Your task to perform on an android device: turn on airplane mode Image 0: 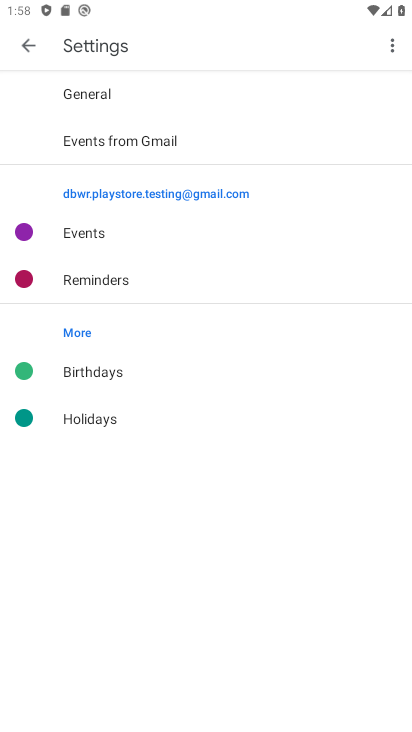
Step 0: press home button
Your task to perform on an android device: turn on airplane mode Image 1: 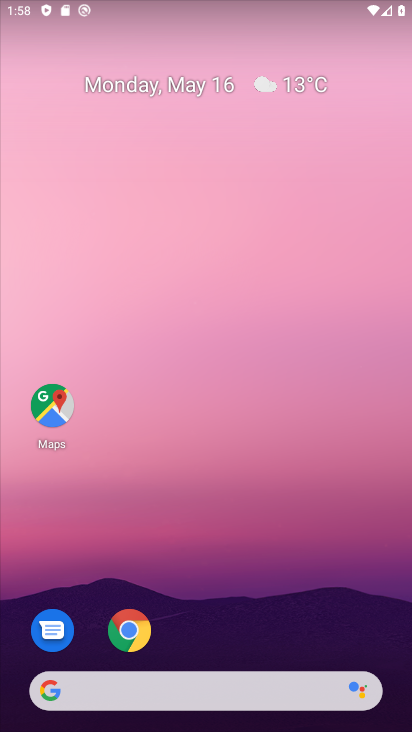
Step 1: drag from (240, 585) to (225, 156)
Your task to perform on an android device: turn on airplane mode Image 2: 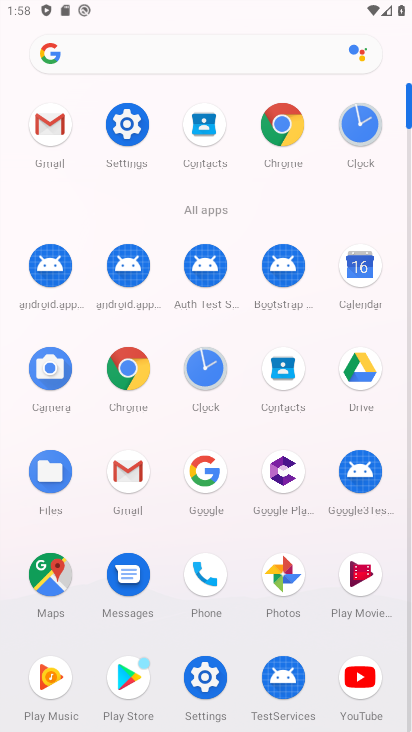
Step 2: click (141, 124)
Your task to perform on an android device: turn on airplane mode Image 3: 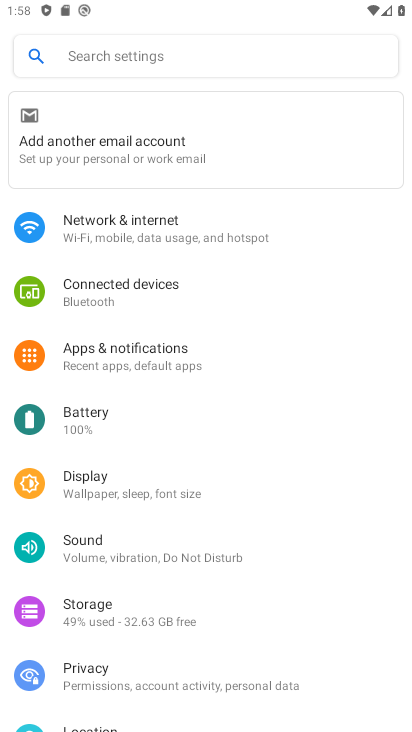
Step 3: click (148, 236)
Your task to perform on an android device: turn on airplane mode Image 4: 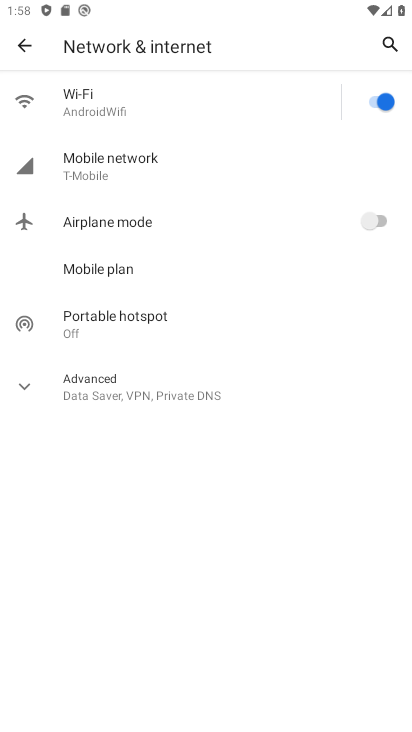
Step 4: click (162, 223)
Your task to perform on an android device: turn on airplane mode Image 5: 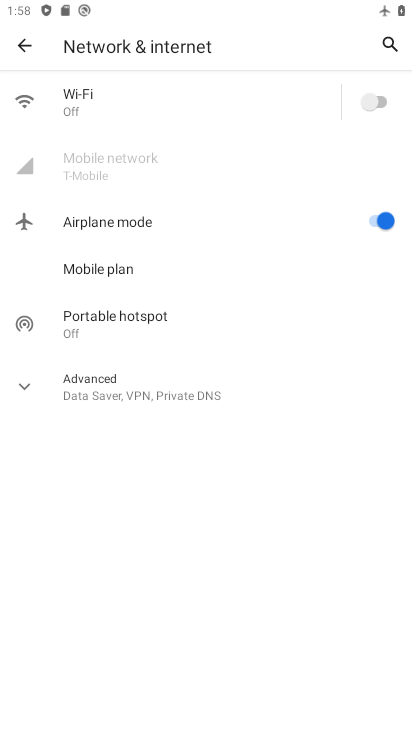
Step 5: task complete